Your task to perform on an android device: Open calendar and show me the first week of next month Image 0: 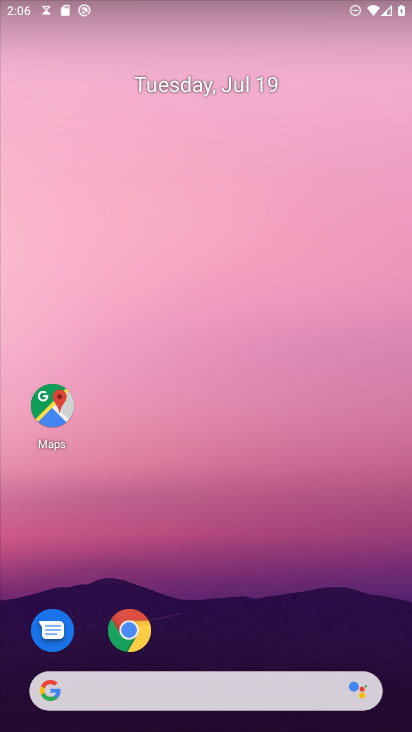
Step 0: press home button
Your task to perform on an android device: Open calendar and show me the first week of next month Image 1: 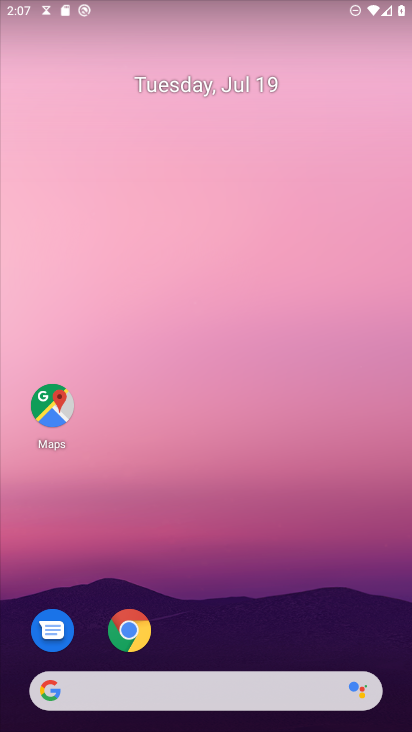
Step 1: drag from (154, 682) to (311, 0)
Your task to perform on an android device: Open calendar and show me the first week of next month Image 2: 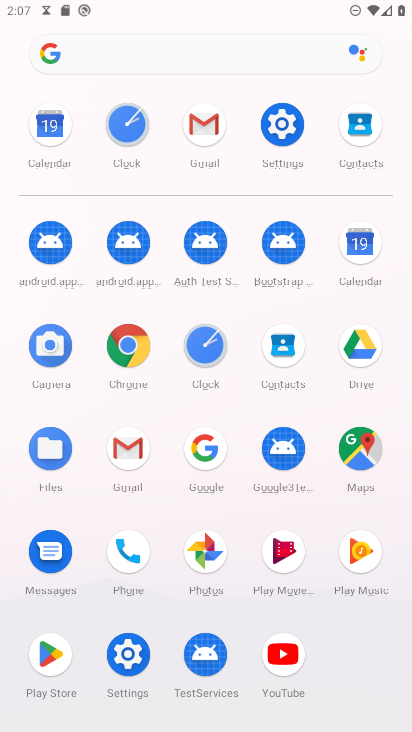
Step 2: click (362, 256)
Your task to perform on an android device: Open calendar and show me the first week of next month Image 3: 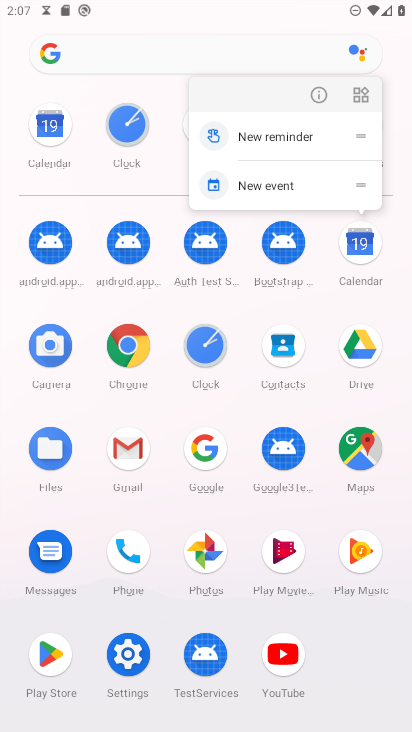
Step 3: click (361, 241)
Your task to perform on an android device: Open calendar and show me the first week of next month Image 4: 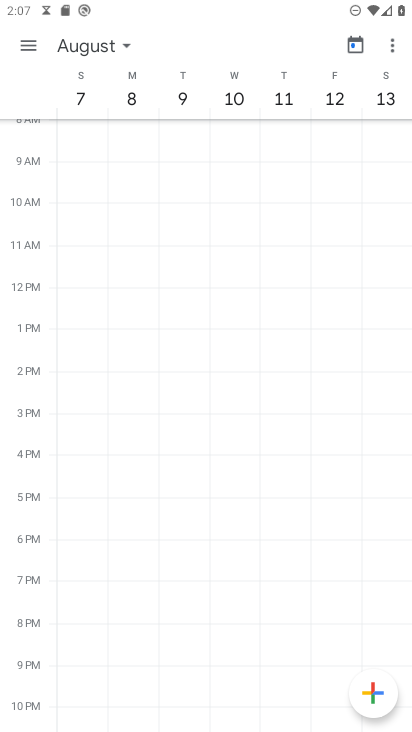
Step 4: click (59, 44)
Your task to perform on an android device: Open calendar and show me the first week of next month Image 5: 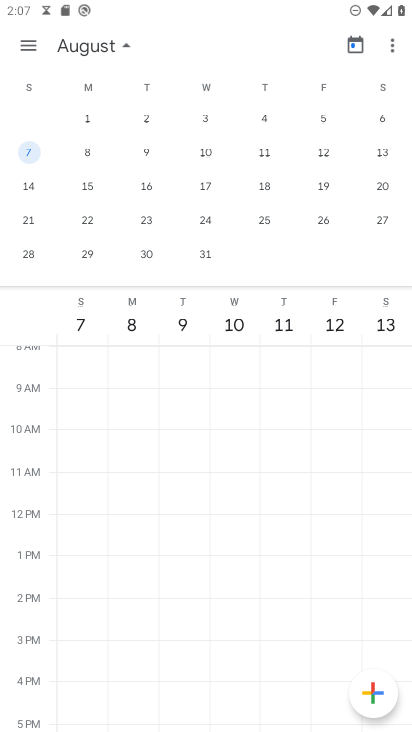
Step 5: click (79, 115)
Your task to perform on an android device: Open calendar and show me the first week of next month Image 6: 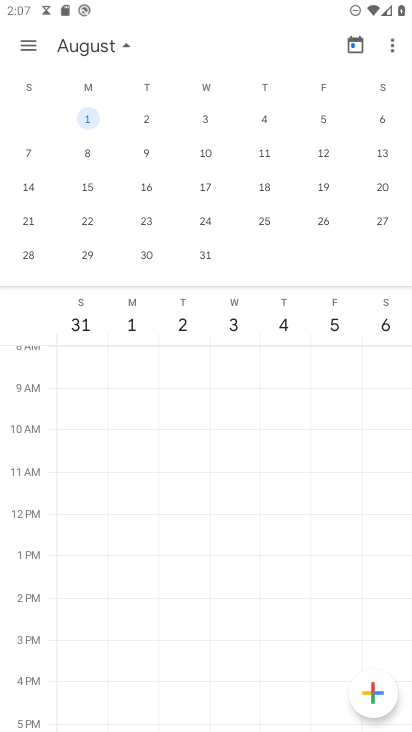
Step 6: task complete